Your task to perform on an android device: open app "Paramount+ | Peak Streaming" (install if not already installed), go to login, and select forgot password Image 0: 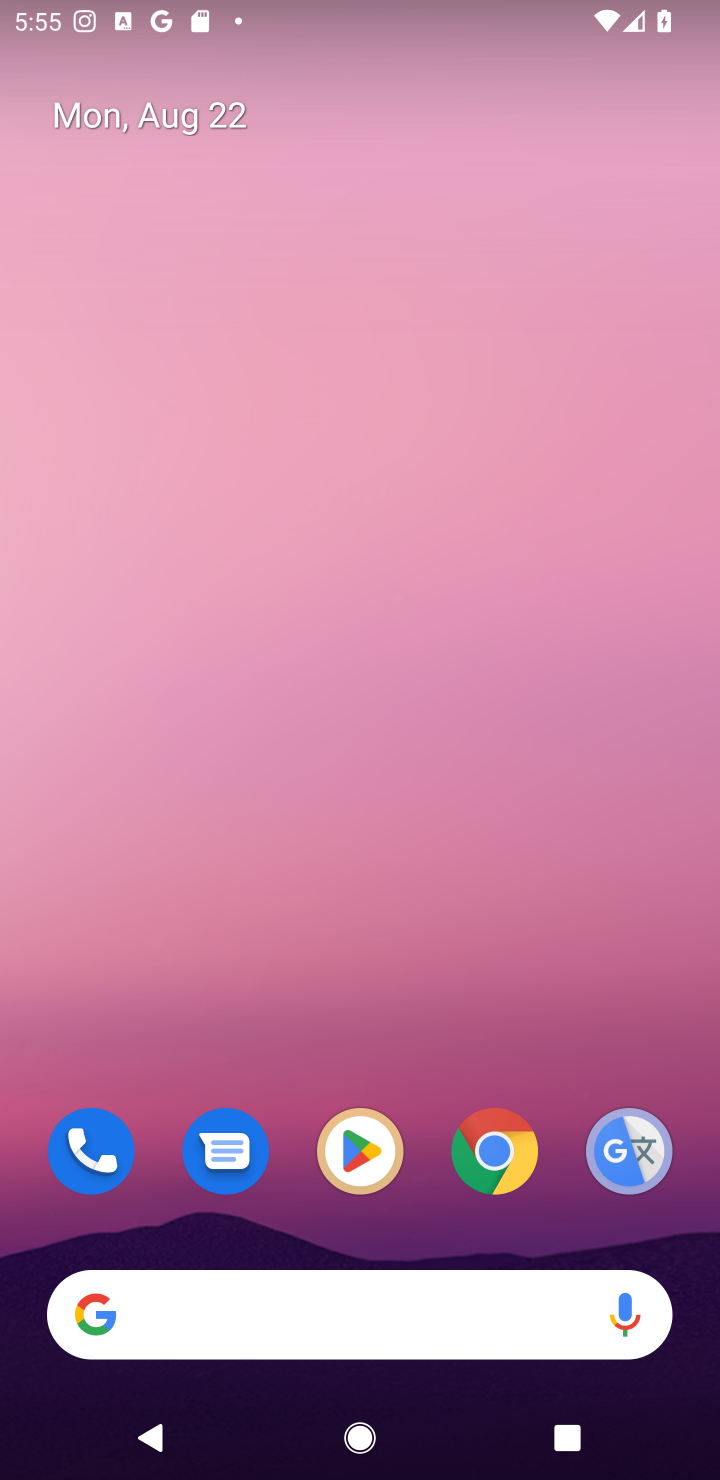
Step 0: press home button
Your task to perform on an android device: open app "Paramount+ | Peak Streaming" (install if not already installed), go to login, and select forgot password Image 1: 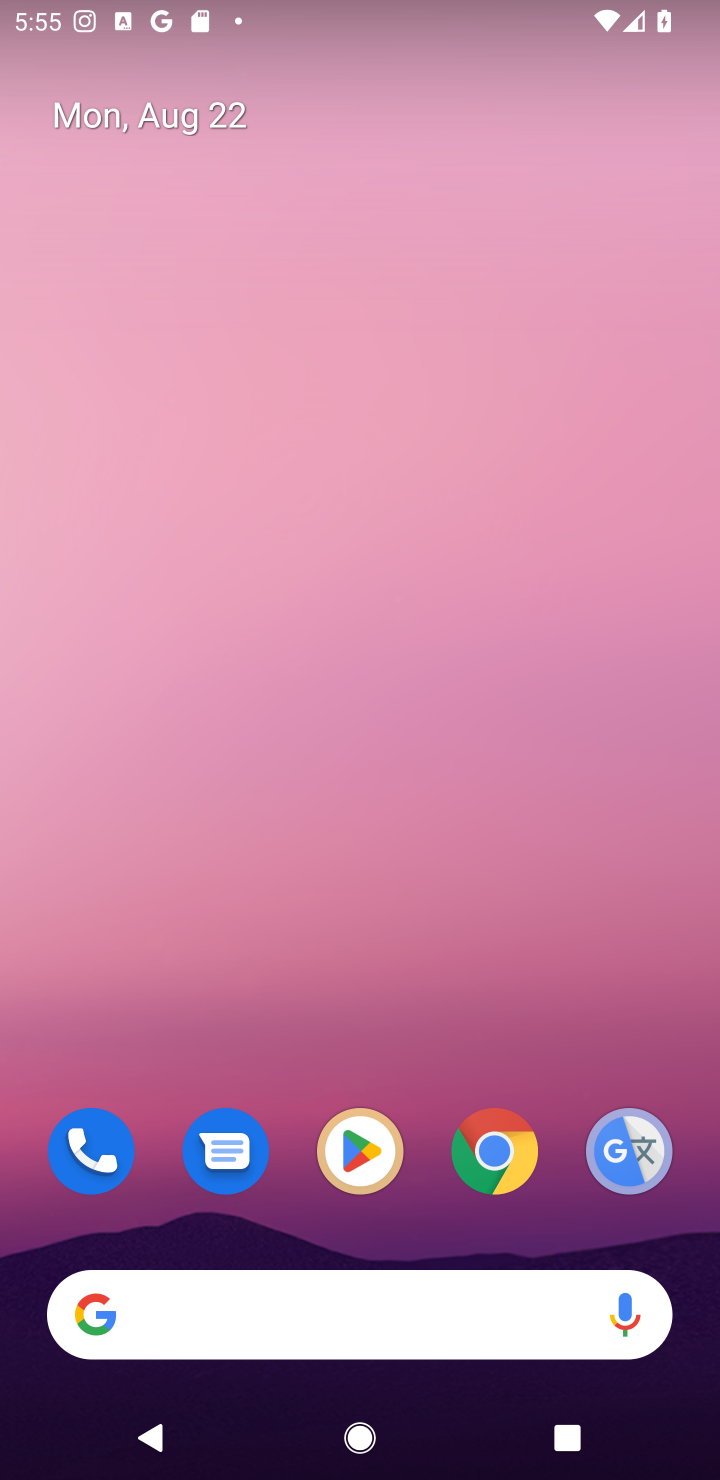
Step 1: click (367, 1141)
Your task to perform on an android device: open app "Paramount+ | Peak Streaming" (install if not already installed), go to login, and select forgot password Image 2: 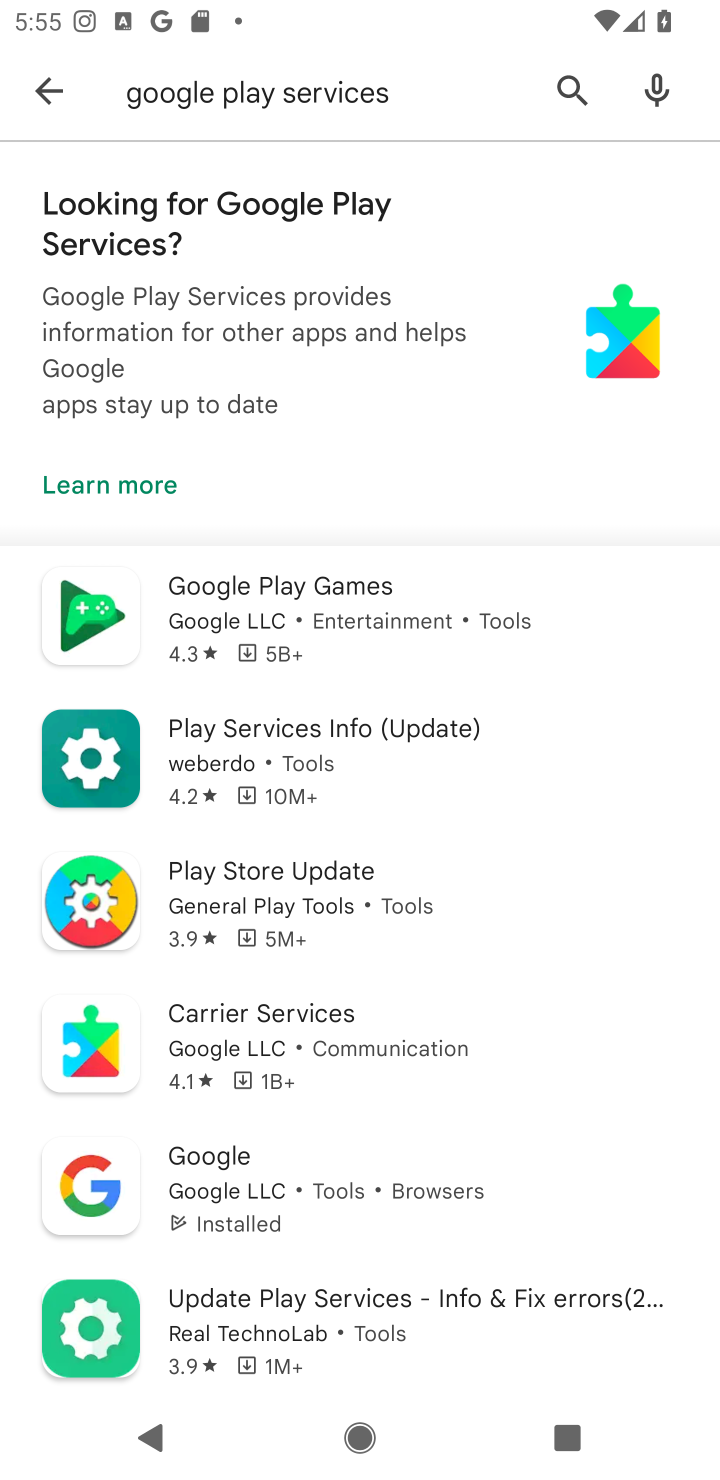
Step 2: click (564, 81)
Your task to perform on an android device: open app "Paramount+ | Peak Streaming" (install if not already installed), go to login, and select forgot password Image 3: 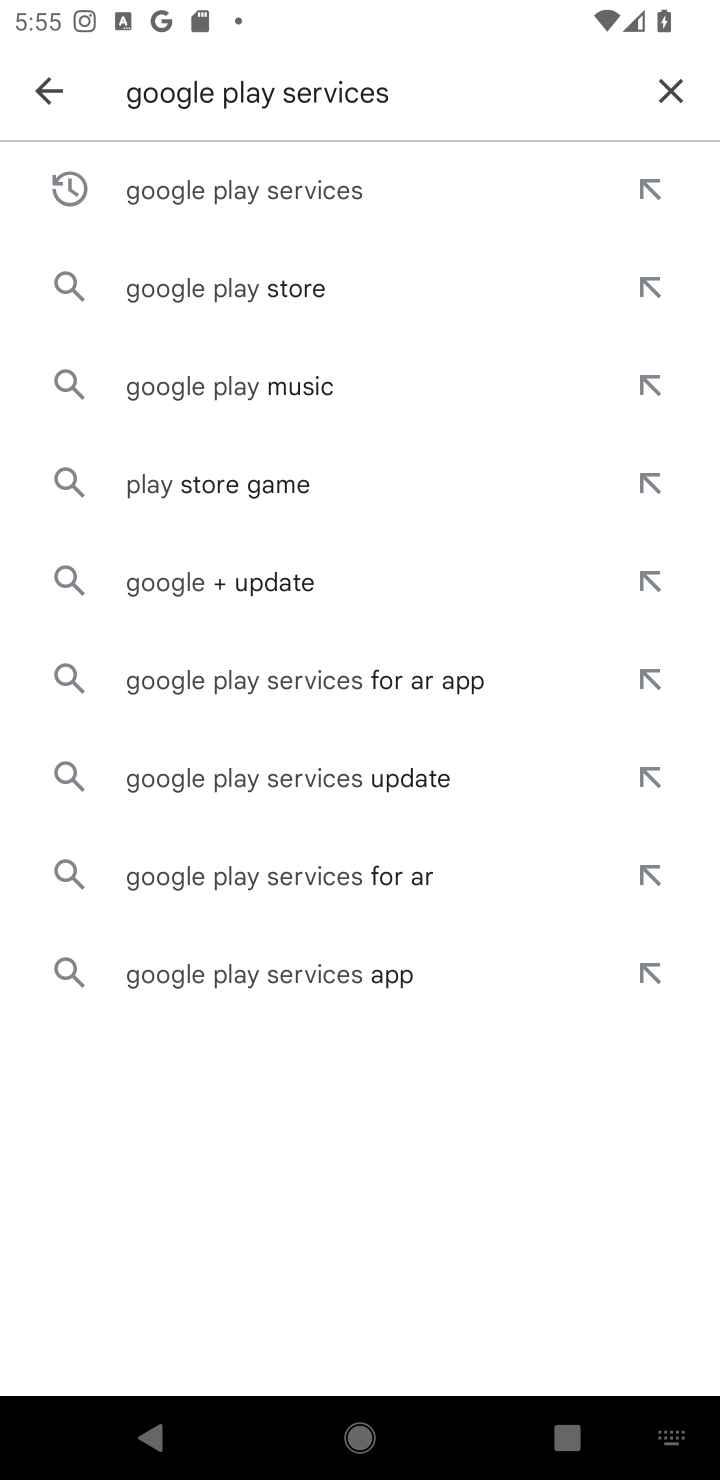
Step 3: click (660, 89)
Your task to perform on an android device: open app "Paramount+ | Peak Streaming" (install if not already installed), go to login, and select forgot password Image 4: 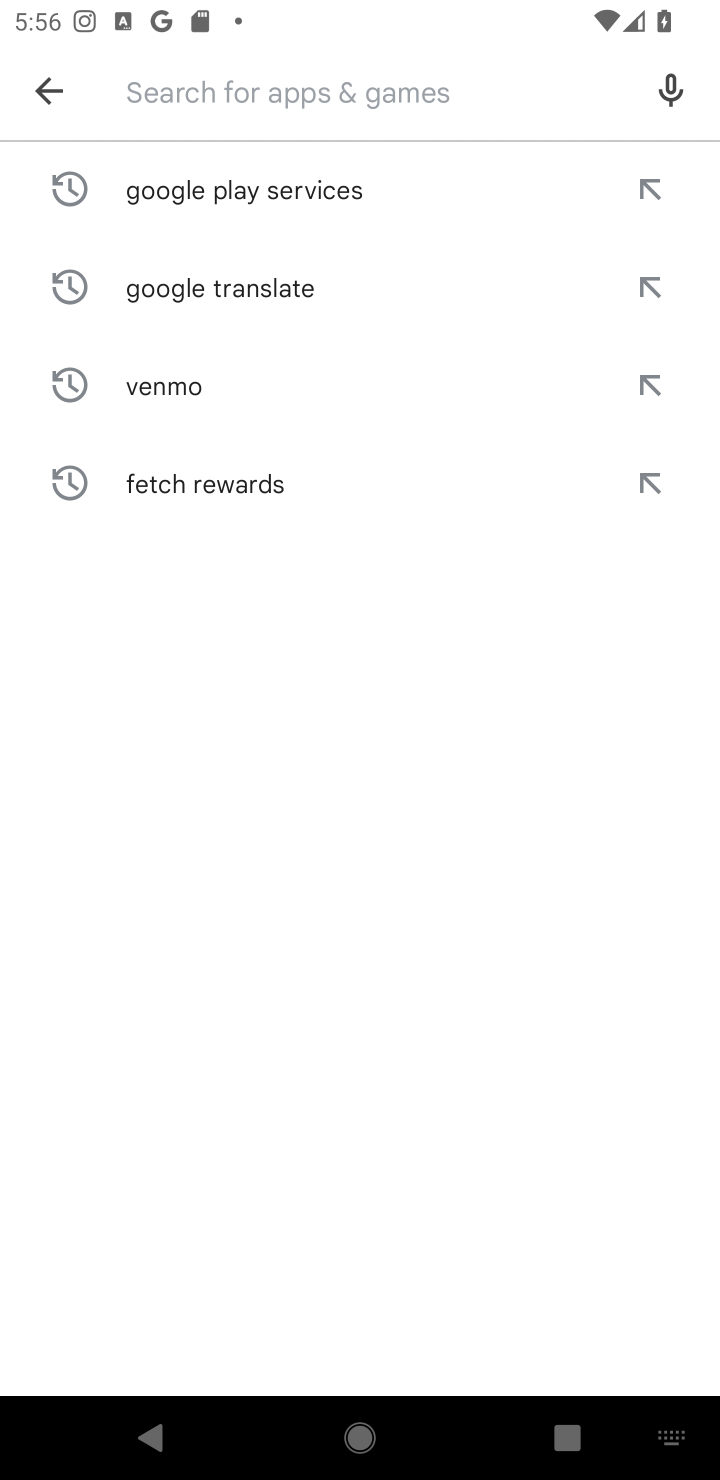
Step 4: type "Paramount+ | Peak Streaming"
Your task to perform on an android device: open app "Paramount+ | Peak Streaming" (install if not already installed), go to login, and select forgot password Image 5: 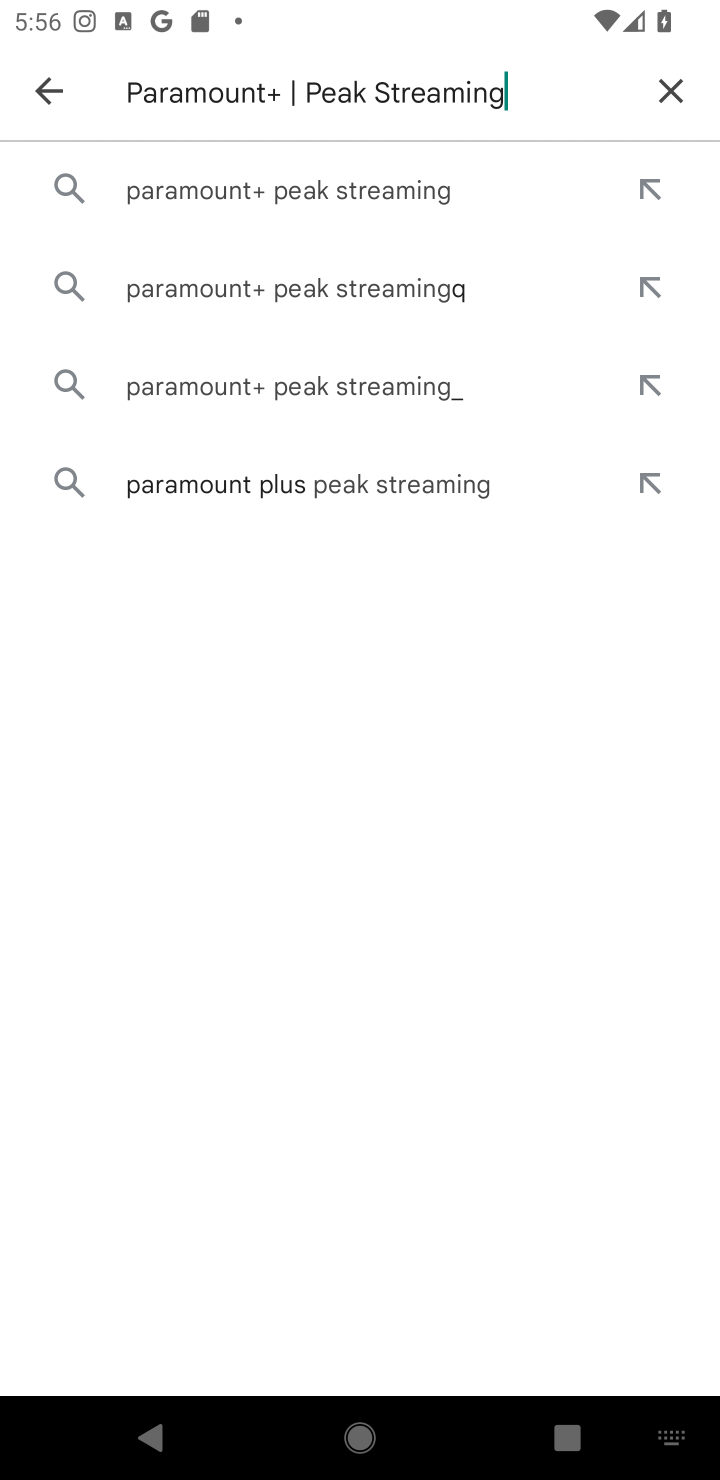
Step 5: click (357, 201)
Your task to perform on an android device: open app "Paramount+ | Peak Streaming" (install if not already installed), go to login, and select forgot password Image 6: 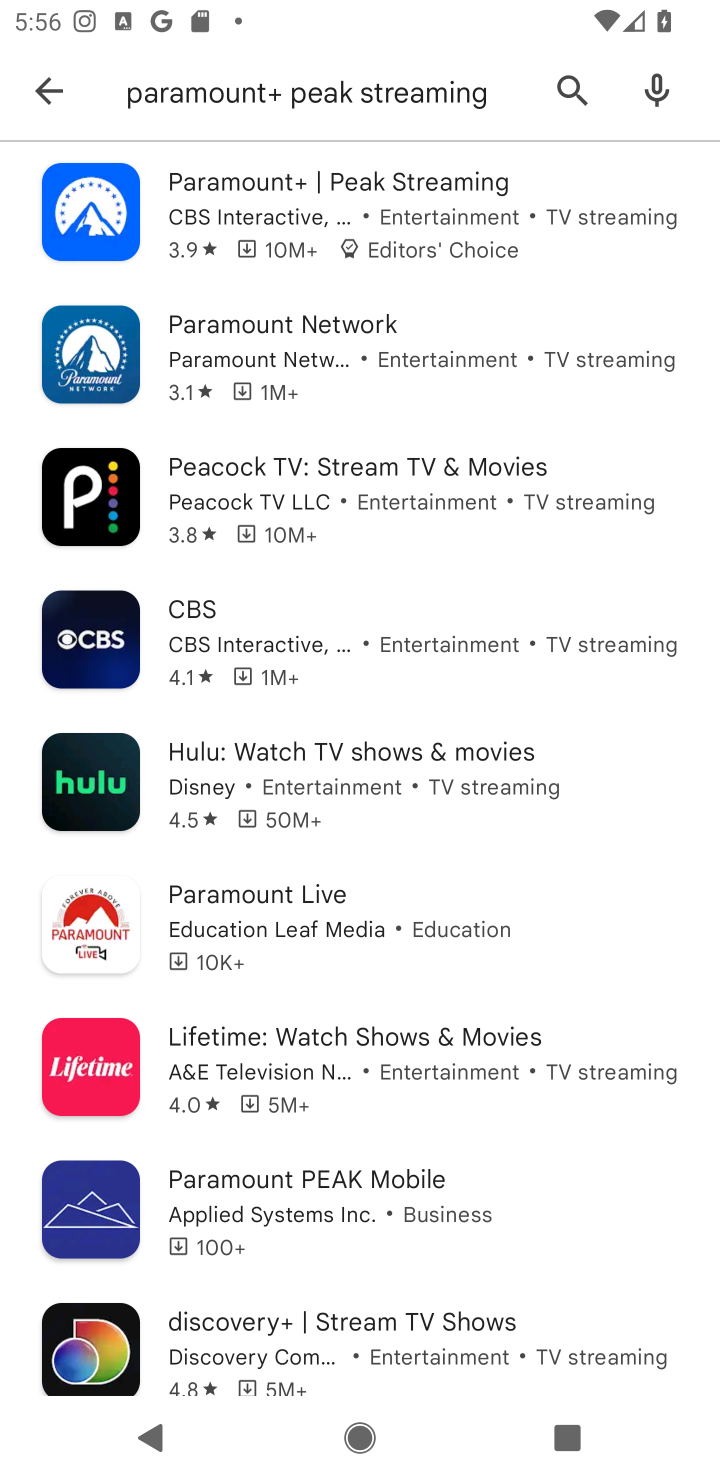
Step 6: click (282, 156)
Your task to perform on an android device: open app "Paramount+ | Peak Streaming" (install if not already installed), go to login, and select forgot password Image 7: 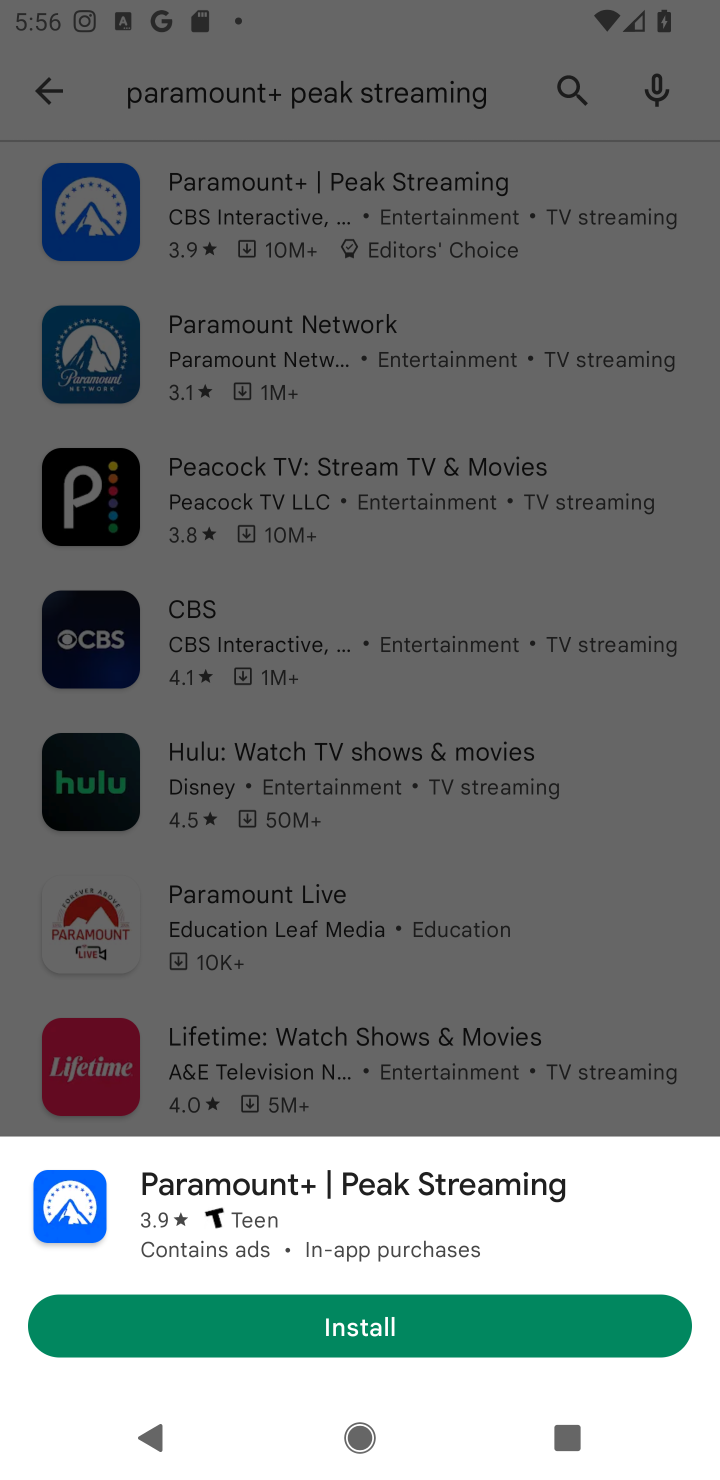
Step 7: click (480, 1310)
Your task to perform on an android device: open app "Paramount+ | Peak Streaming" (install if not already installed), go to login, and select forgot password Image 8: 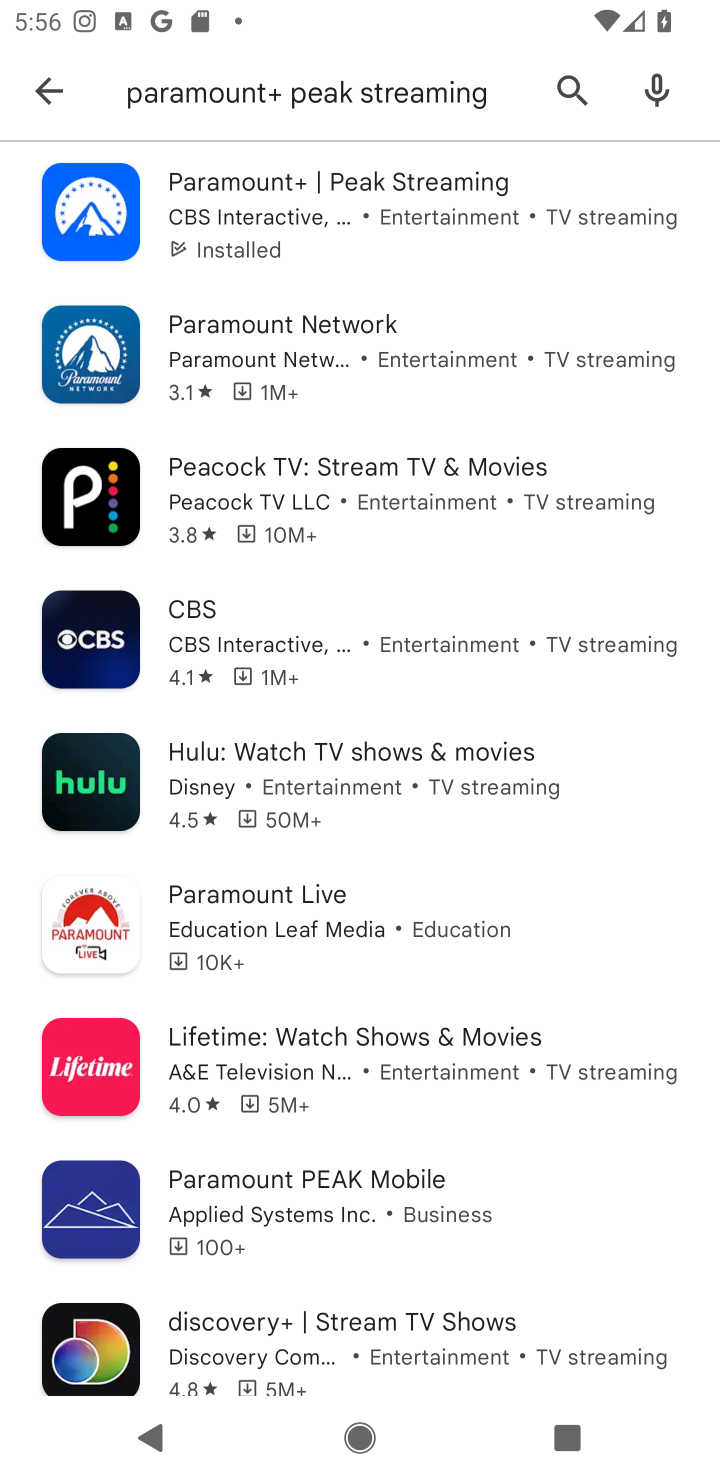
Step 8: click (209, 196)
Your task to perform on an android device: open app "Paramount+ | Peak Streaming" (install if not already installed), go to login, and select forgot password Image 9: 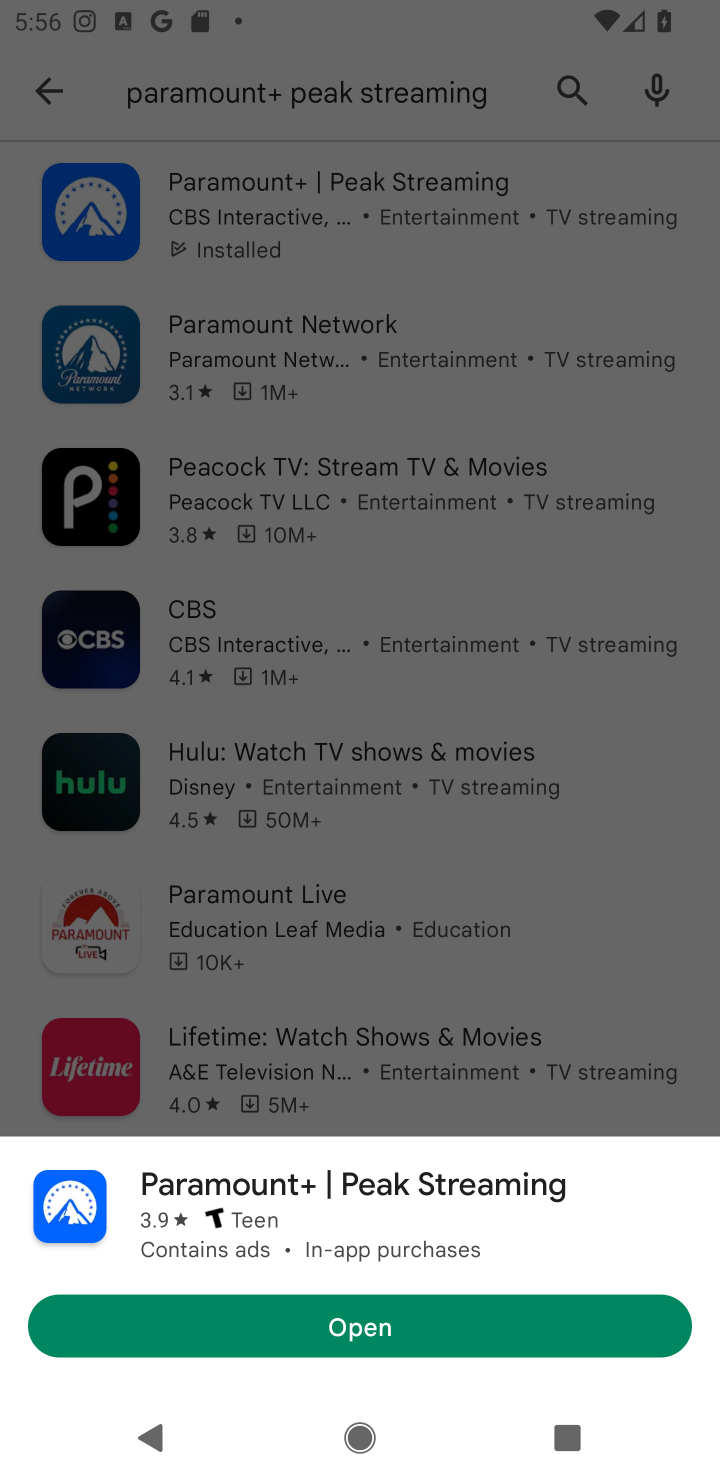
Step 9: click (354, 1322)
Your task to perform on an android device: open app "Paramount+ | Peak Streaming" (install if not already installed), go to login, and select forgot password Image 10: 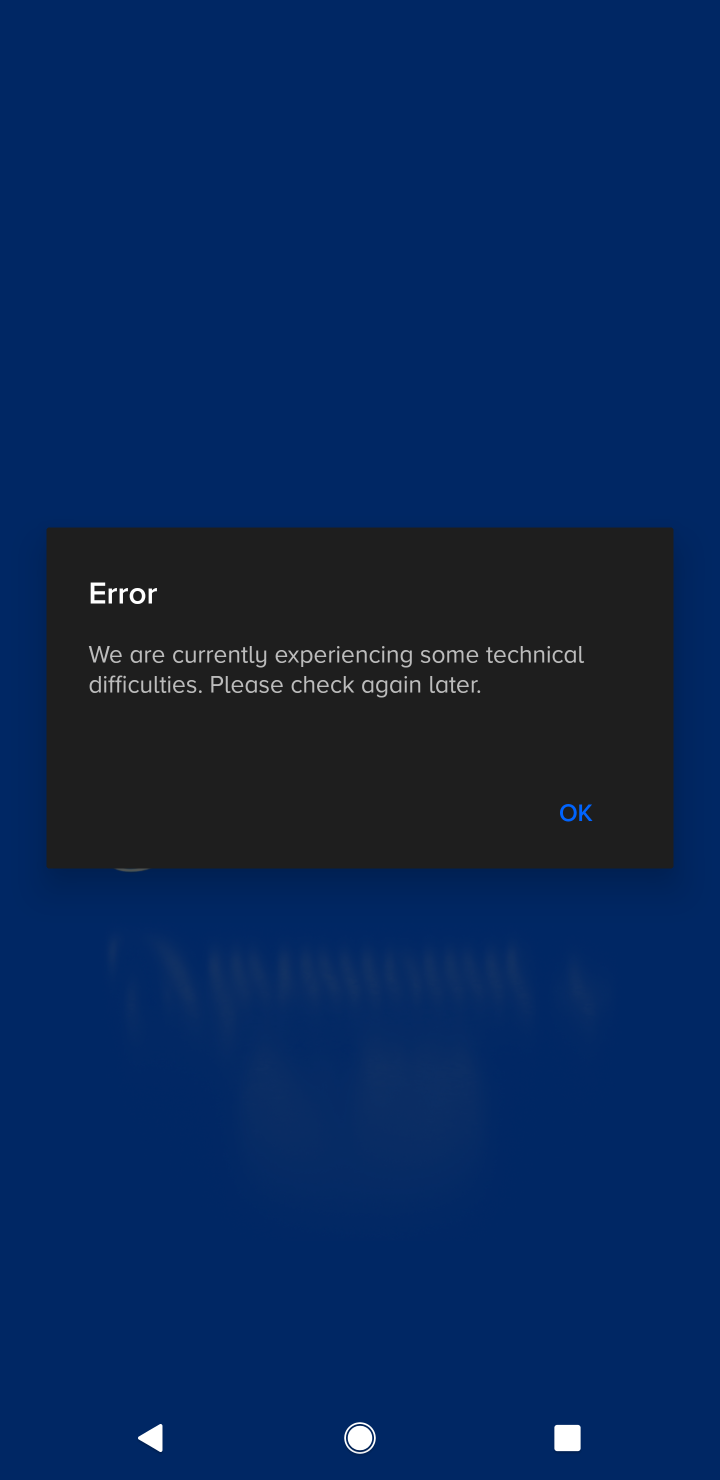
Step 10: task complete